Your task to perform on an android device: clear all cookies in the chrome app Image 0: 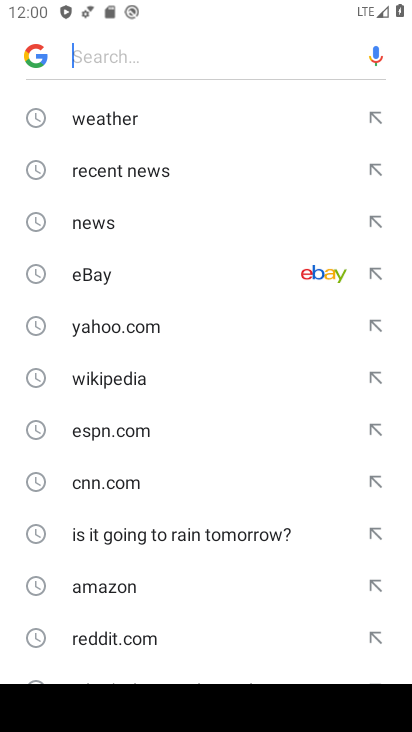
Step 0: press home button
Your task to perform on an android device: clear all cookies in the chrome app Image 1: 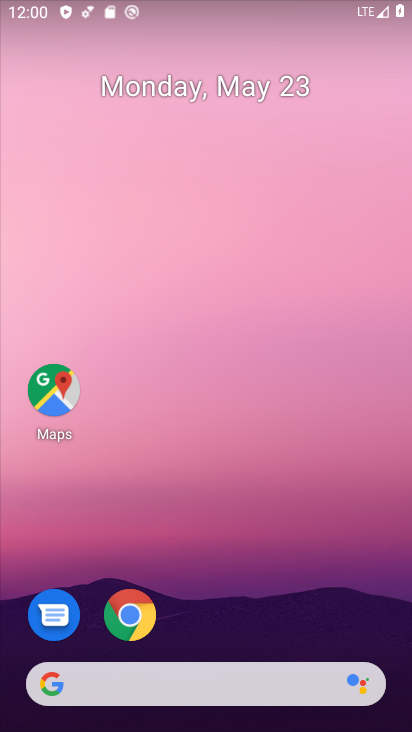
Step 1: click (143, 608)
Your task to perform on an android device: clear all cookies in the chrome app Image 2: 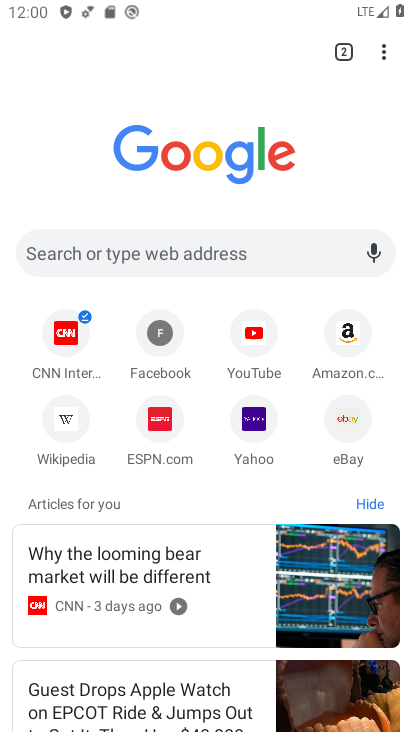
Step 2: drag from (386, 44) to (220, 305)
Your task to perform on an android device: clear all cookies in the chrome app Image 3: 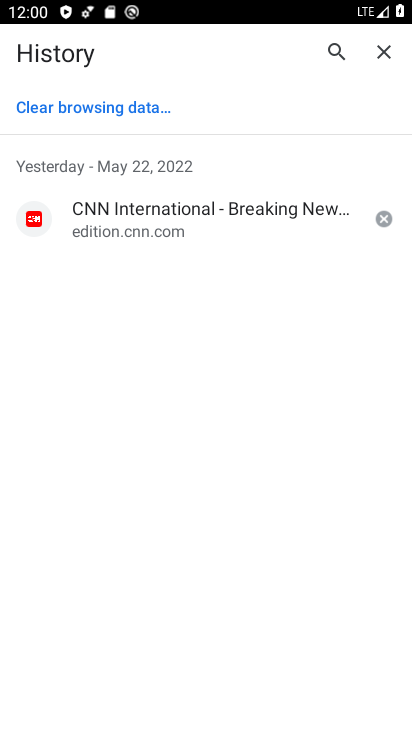
Step 3: click (96, 113)
Your task to perform on an android device: clear all cookies in the chrome app Image 4: 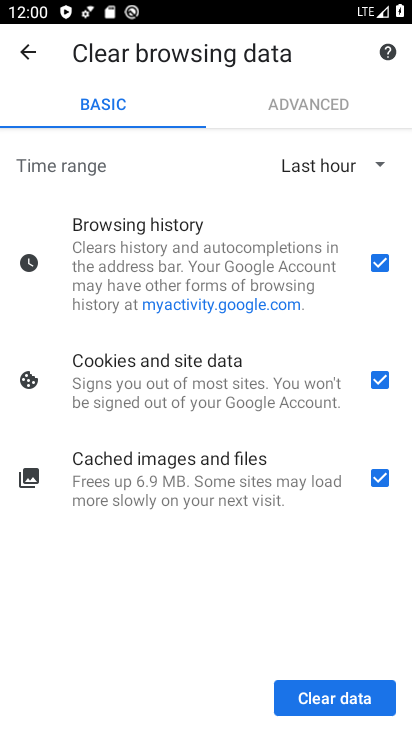
Step 4: click (377, 262)
Your task to perform on an android device: clear all cookies in the chrome app Image 5: 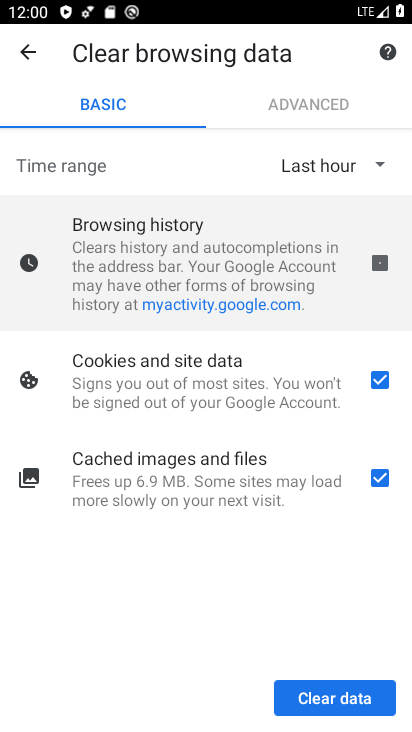
Step 5: click (382, 476)
Your task to perform on an android device: clear all cookies in the chrome app Image 6: 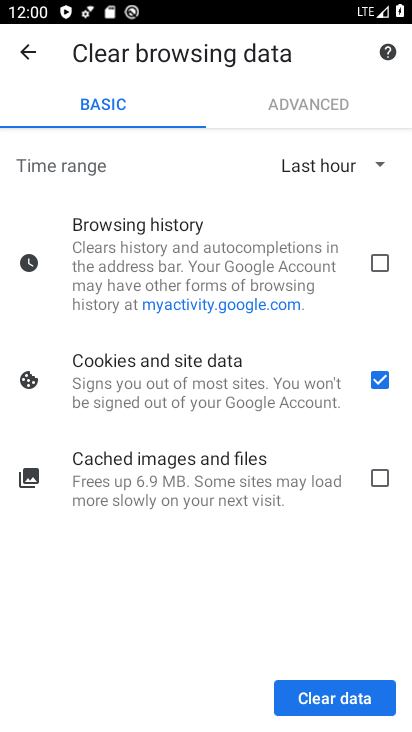
Step 6: click (307, 705)
Your task to perform on an android device: clear all cookies in the chrome app Image 7: 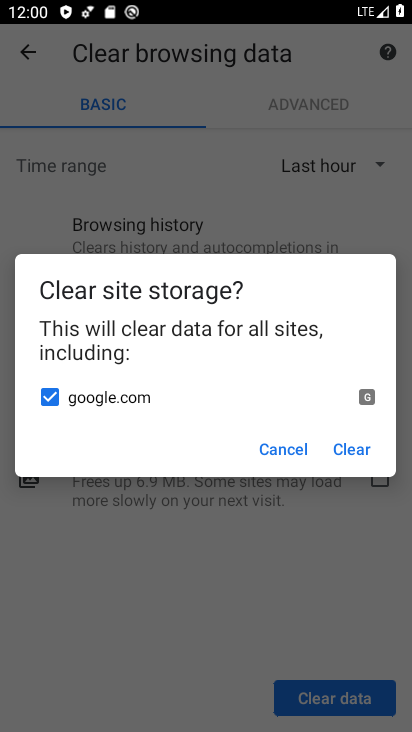
Step 7: click (354, 461)
Your task to perform on an android device: clear all cookies in the chrome app Image 8: 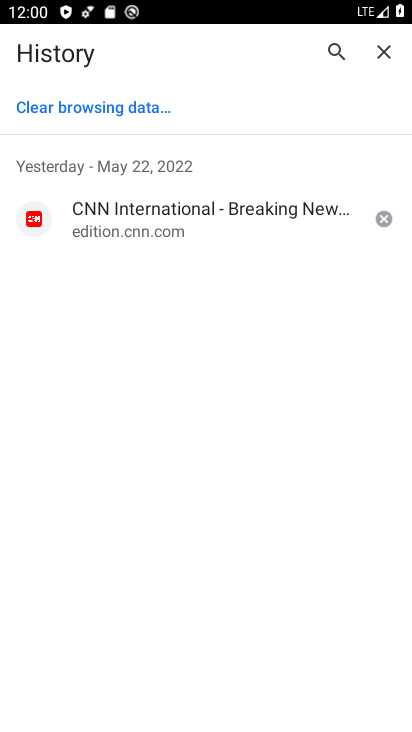
Step 8: task complete